Your task to perform on an android device: search for starred emails in the gmail app Image 0: 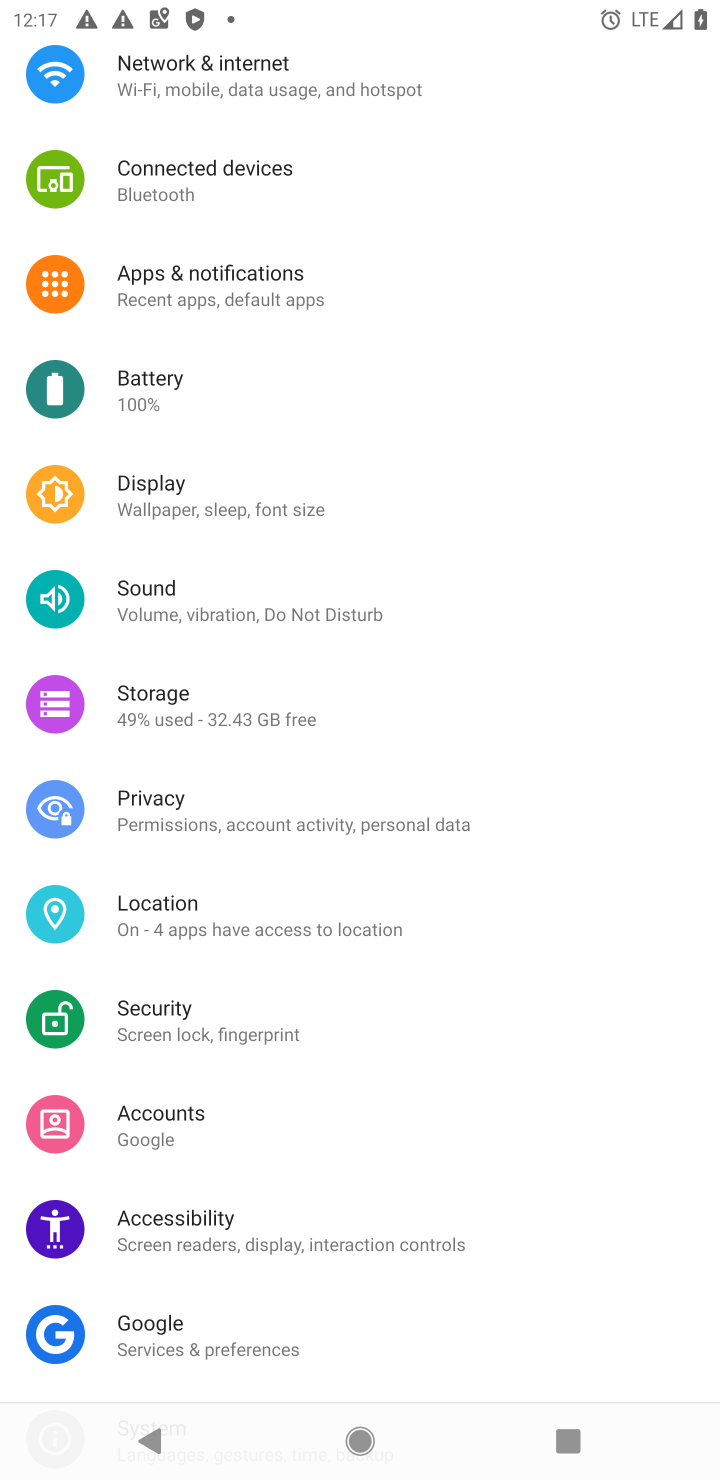
Step 0: press home button
Your task to perform on an android device: search for starred emails in the gmail app Image 1: 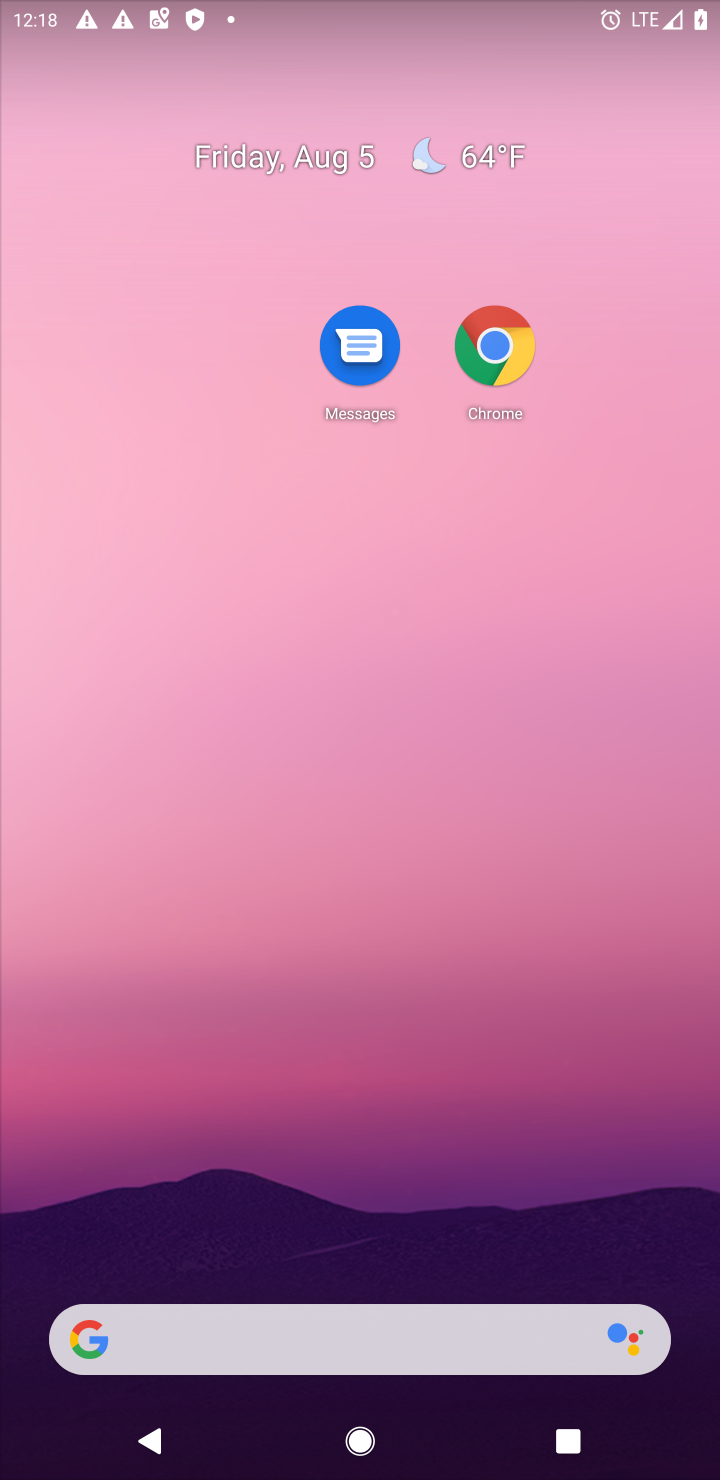
Step 1: drag from (282, 919) to (384, 3)
Your task to perform on an android device: search for starred emails in the gmail app Image 2: 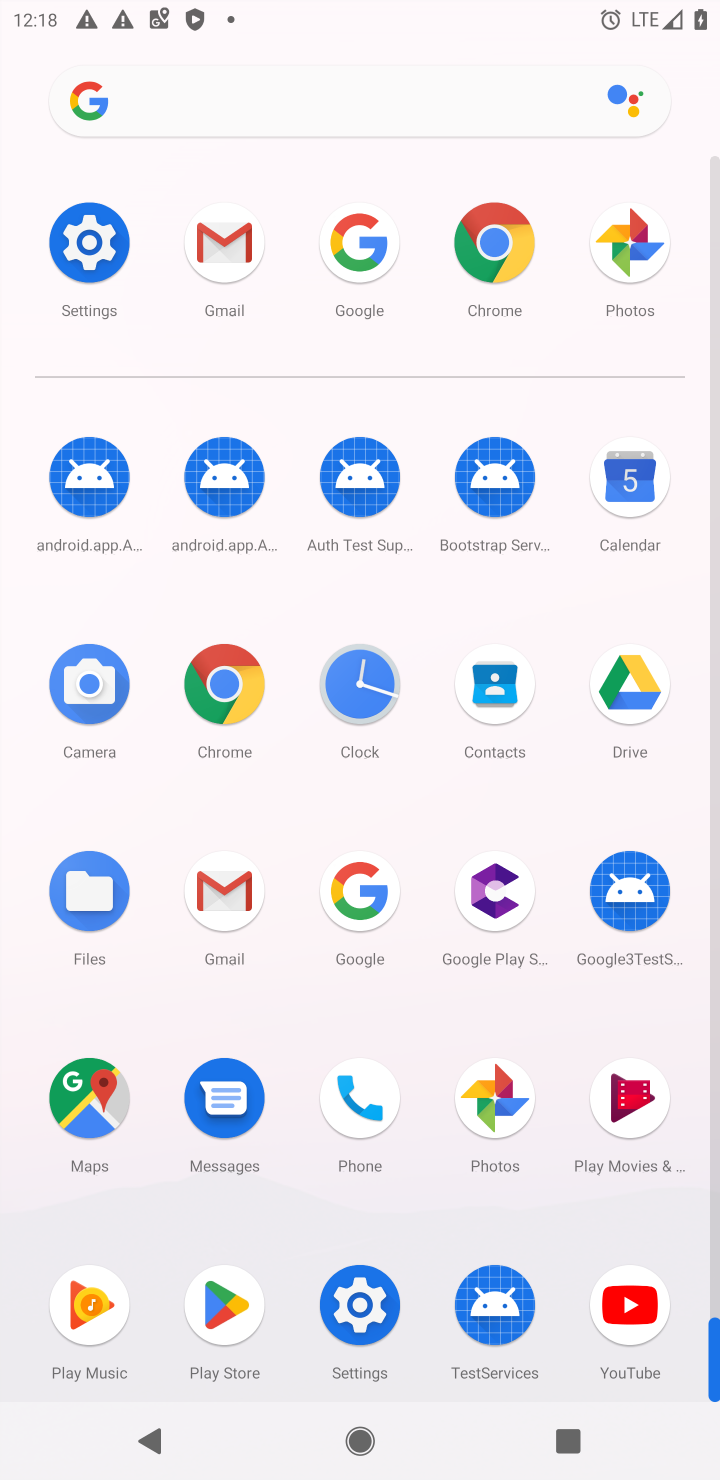
Step 2: click (216, 254)
Your task to perform on an android device: search for starred emails in the gmail app Image 3: 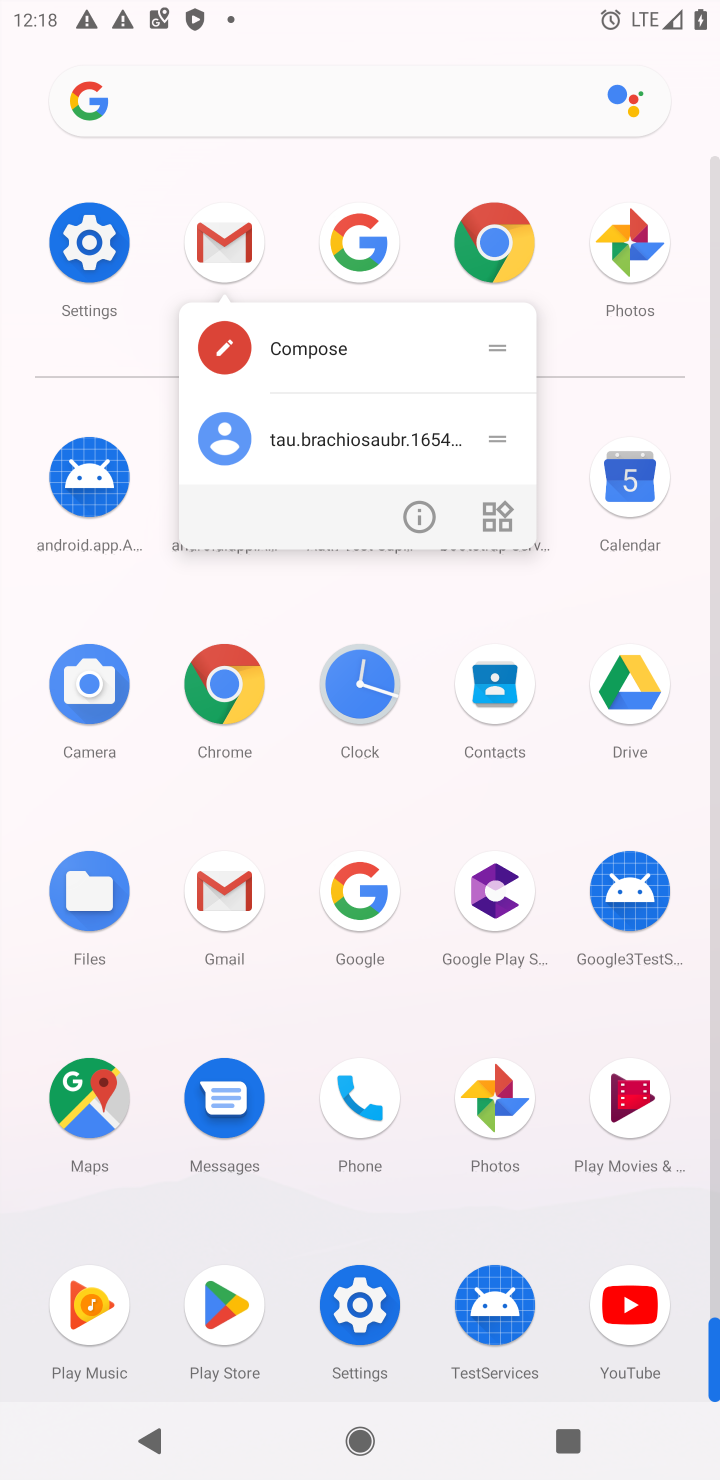
Step 3: click (208, 248)
Your task to perform on an android device: search for starred emails in the gmail app Image 4: 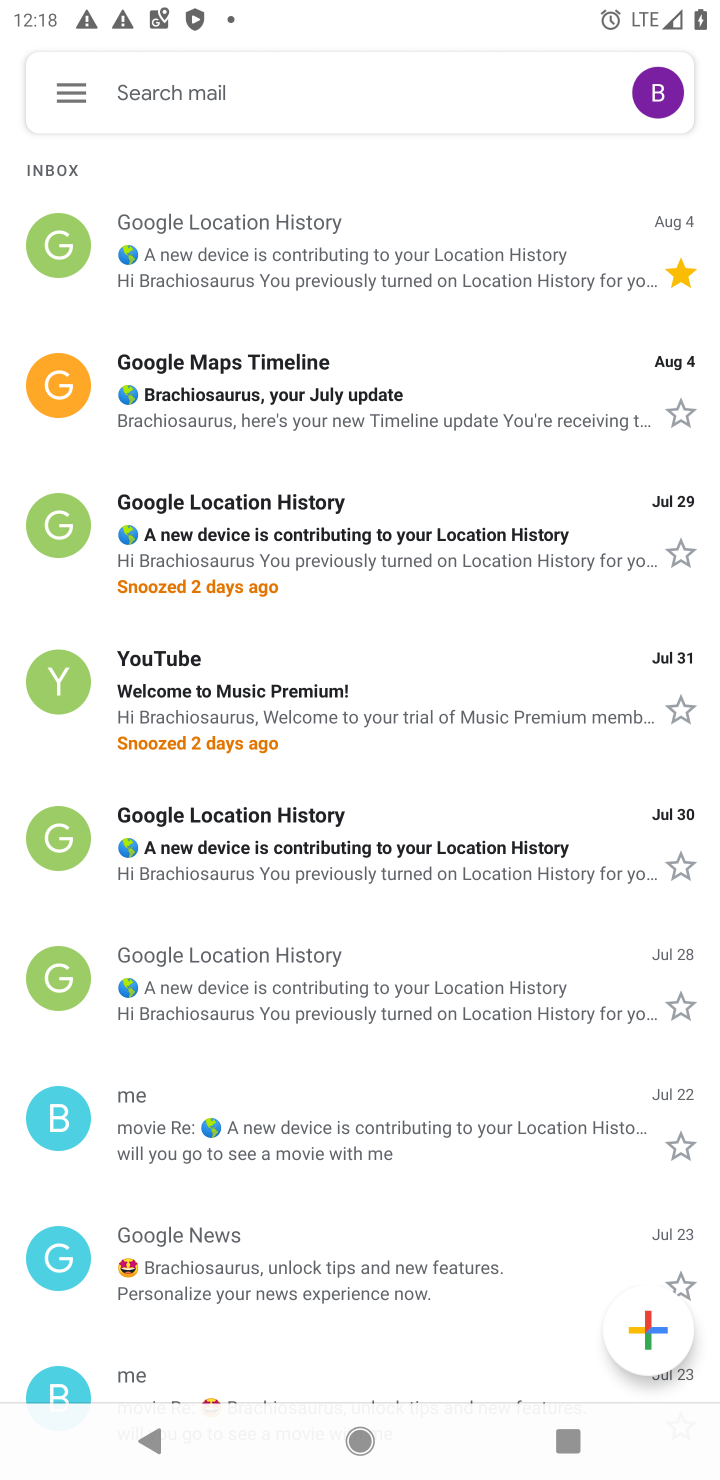
Step 4: click (66, 102)
Your task to perform on an android device: search for starred emails in the gmail app Image 5: 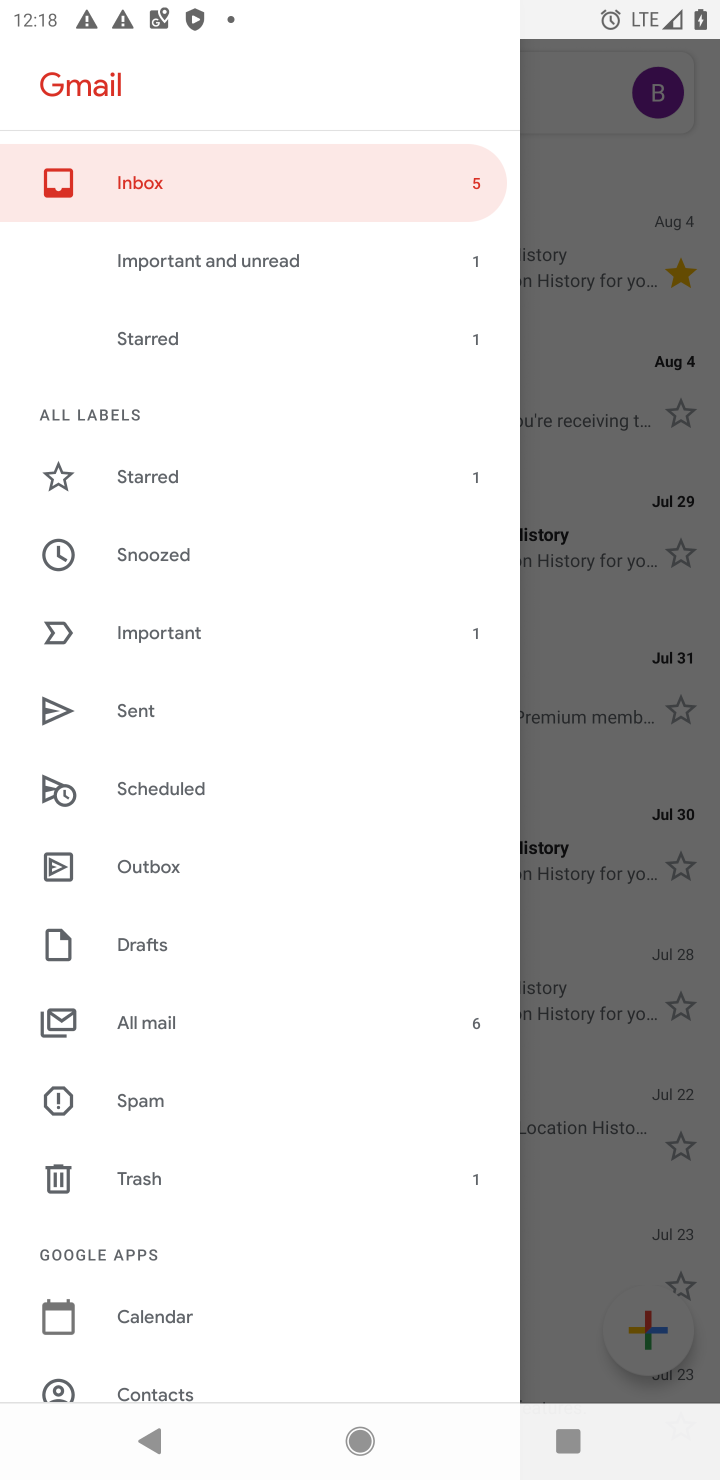
Step 5: click (155, 484)
Your task to perform on an android device: search for starred emails in the gmail app Image 6: 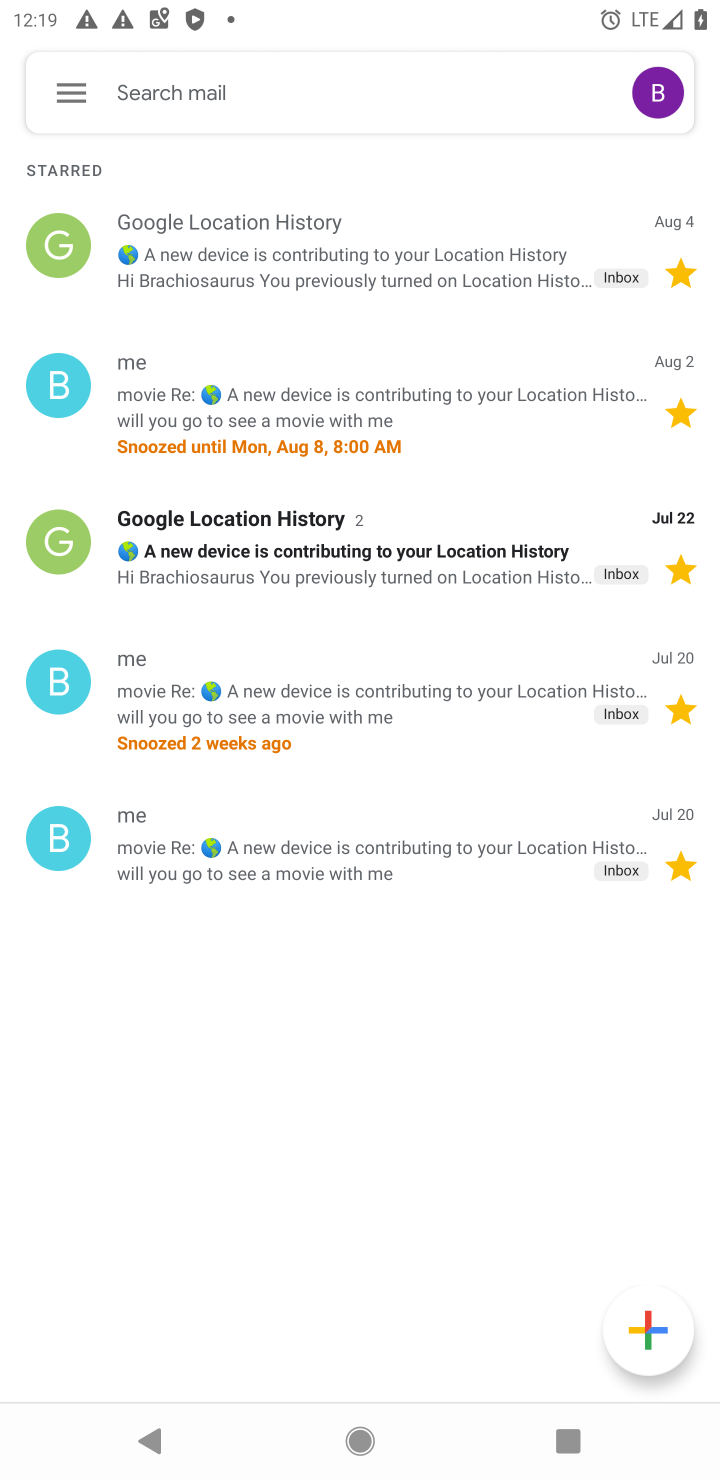
Step 6: task complete